Your task to perform on an android device: open app "Google Pay: Save, Pay, Manage" Image 0: 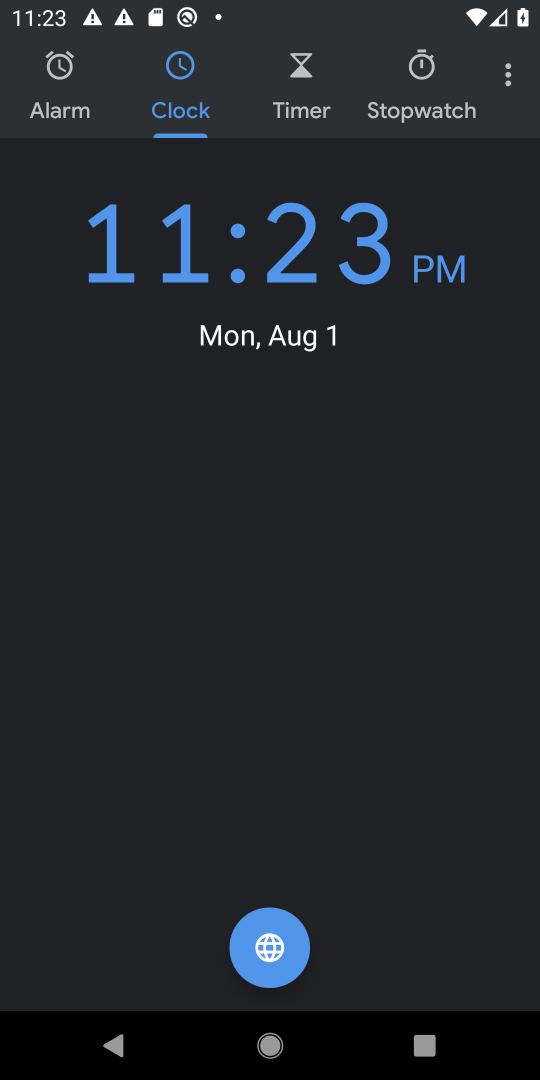
Step 0: press home button
Your task to perform on an android device: open app "Google Pay: Save, Pay, Manage" Image 1: 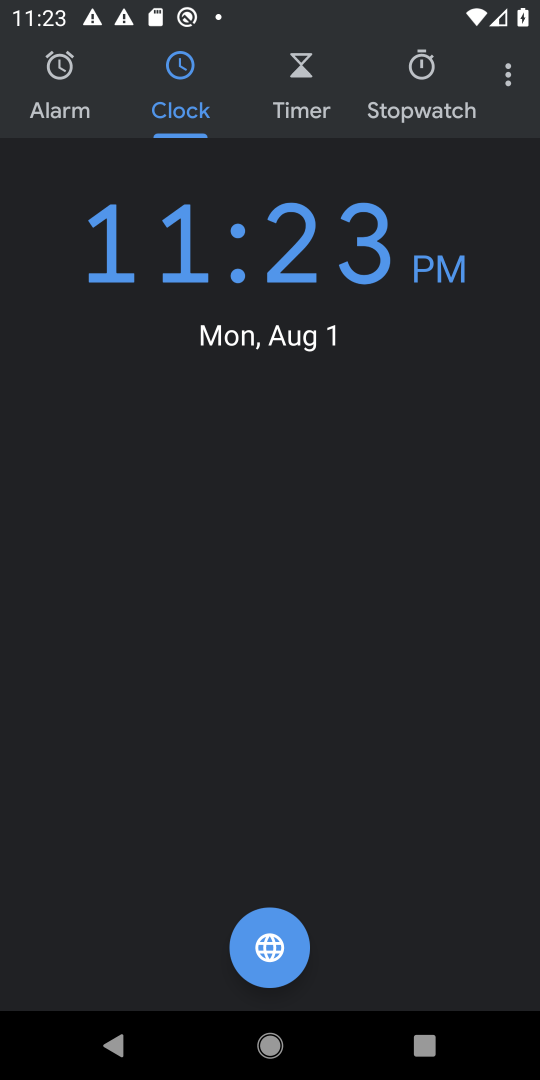
Step 1: click (394, 199)
Your task to perform on an android device: open app "Google Pay: Save, Pay, Manage" Image 2: 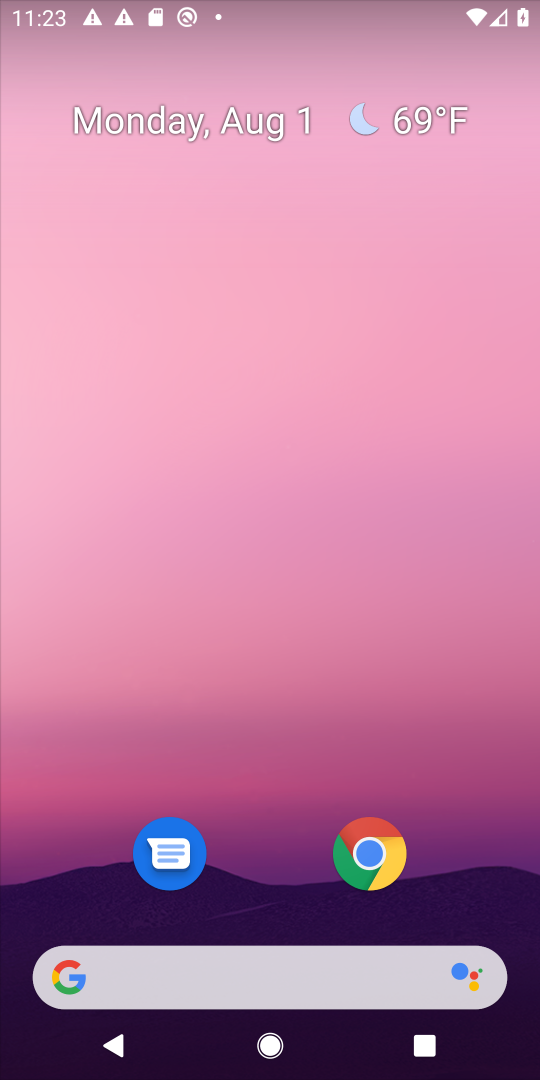
Step 2: drag from (252, 618) to (395, 24)
Your task to perform on an android device: open app "Google Pay: Save, Pay, Manage" Image 3: 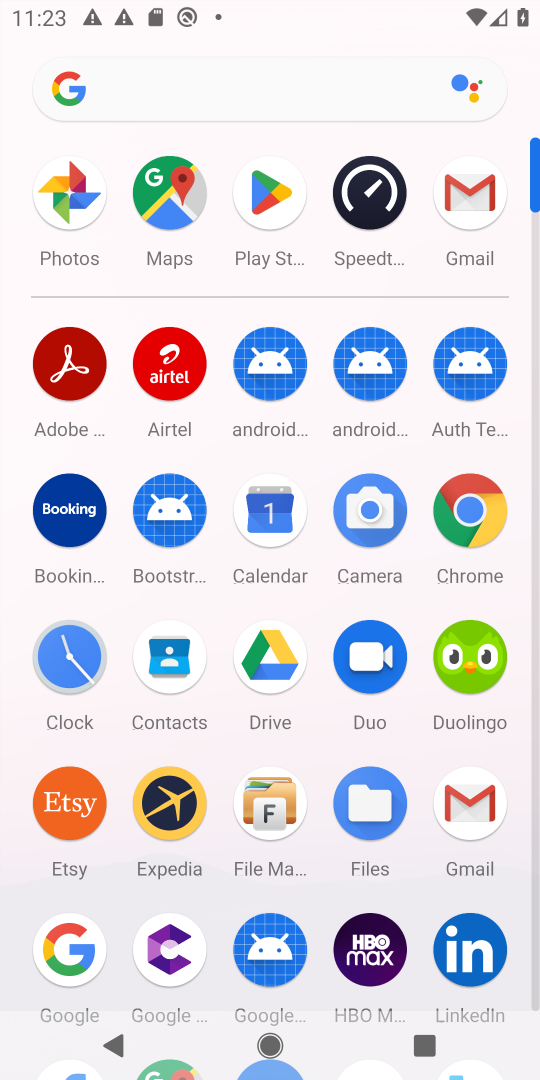
Step 3: click (264, 200)
Your task to perform on an android device: open app "Google Pay: Save, Pay, Manage" Image 4: 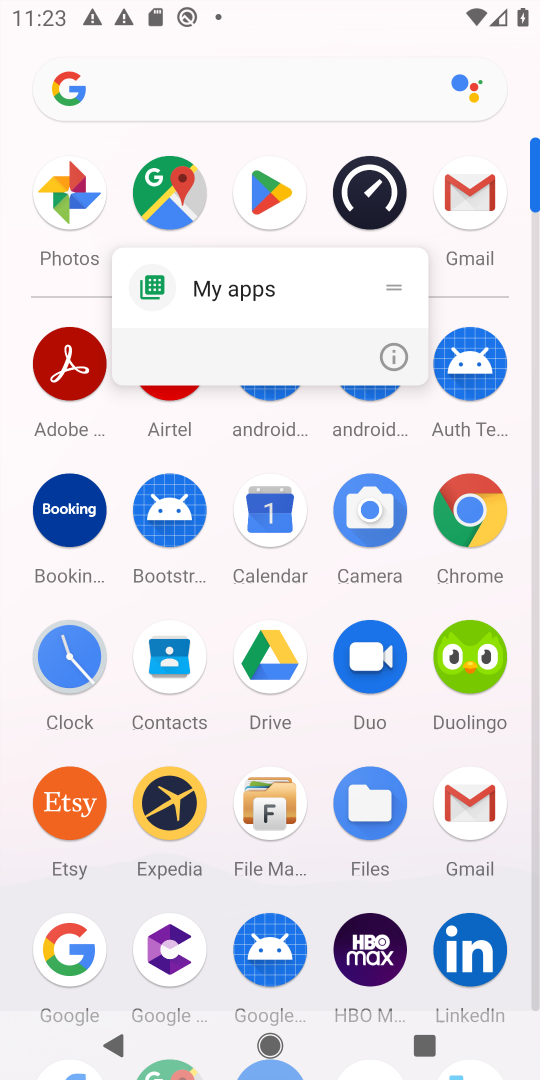
Step 4: click (395, 356)
Your task to perform on an android device: open app "Google Pay: Save, Pay, Manage" Image 5: 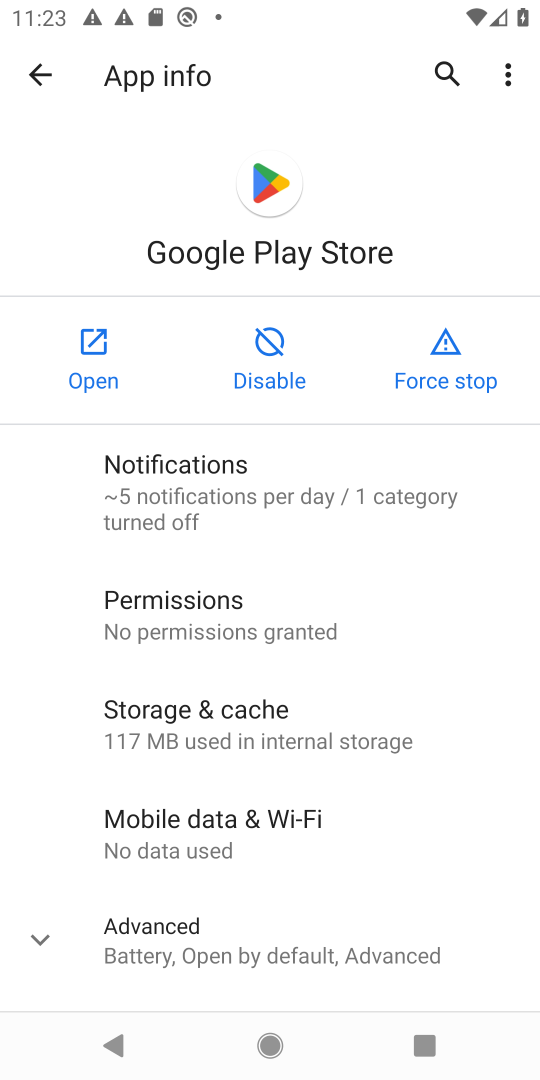
Step 5: click (111, 359)
Your task to perform on an android device: open app "Google Pay: Save, Pay, Manage" Image 6: 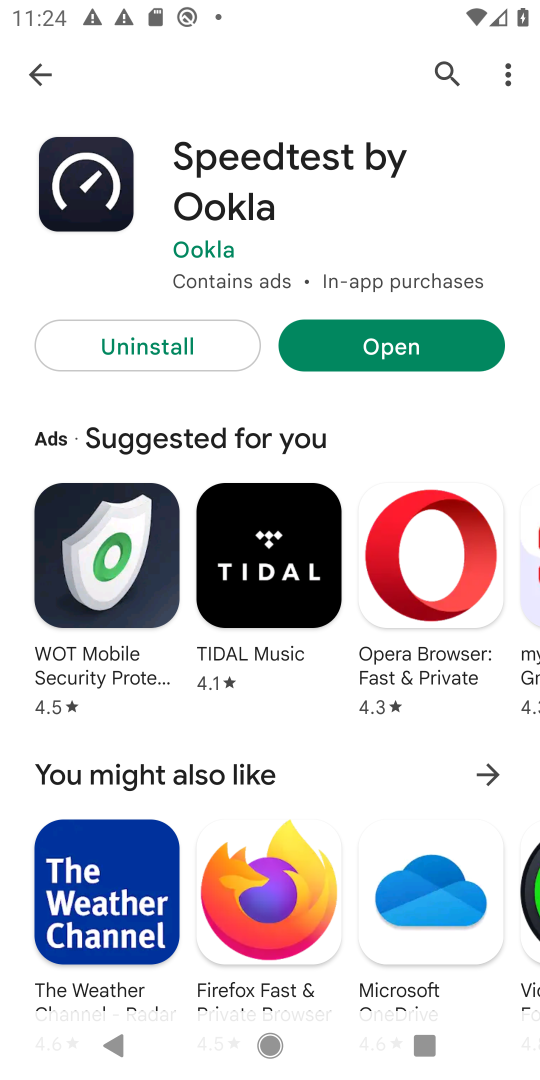
Step 6: click (436, 69)
Your task to perform on an android device: open app "Google Pay: Save, Pay, Manage" Image 7: 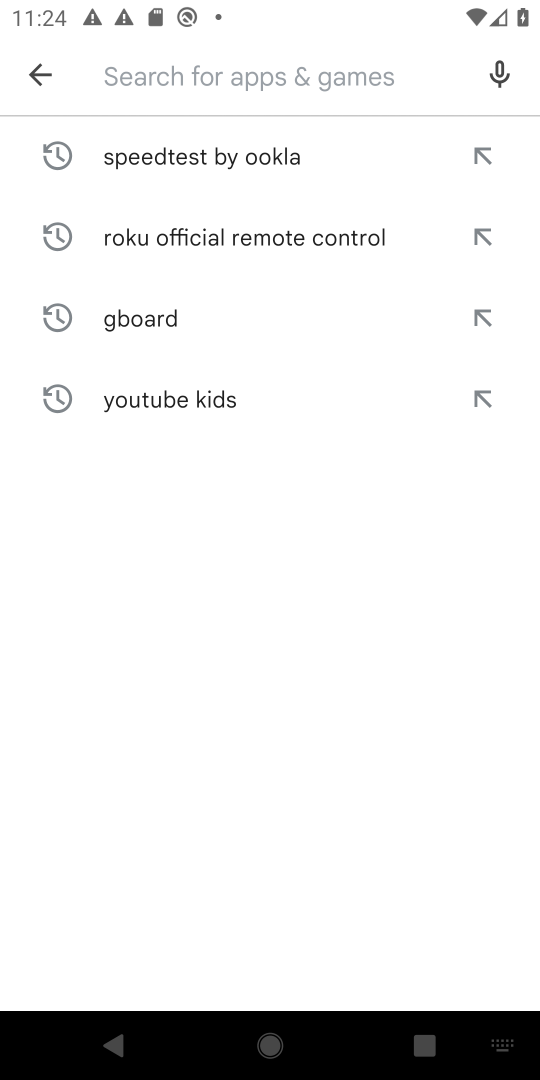
Step 7: type "Google Pay: Save, Pay, Manage"
Your task to perform on an android device: open app "Google Pay: Save, Pay, Manage" Image 8: 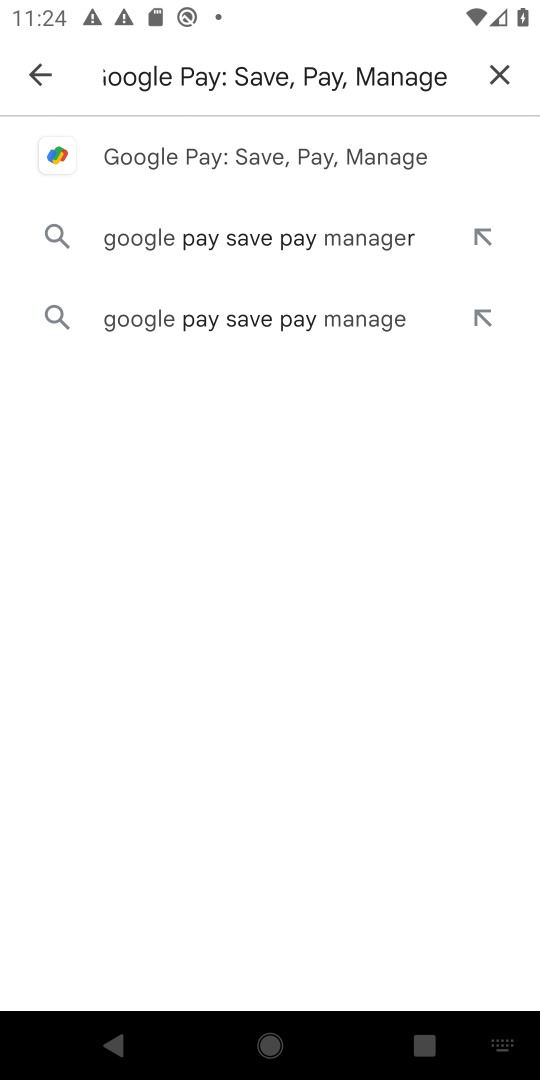
Step 8: click (184, 146)
Your task to perform on an android device: open app "Google Pay: Save, Pay, Manage" Image 9: 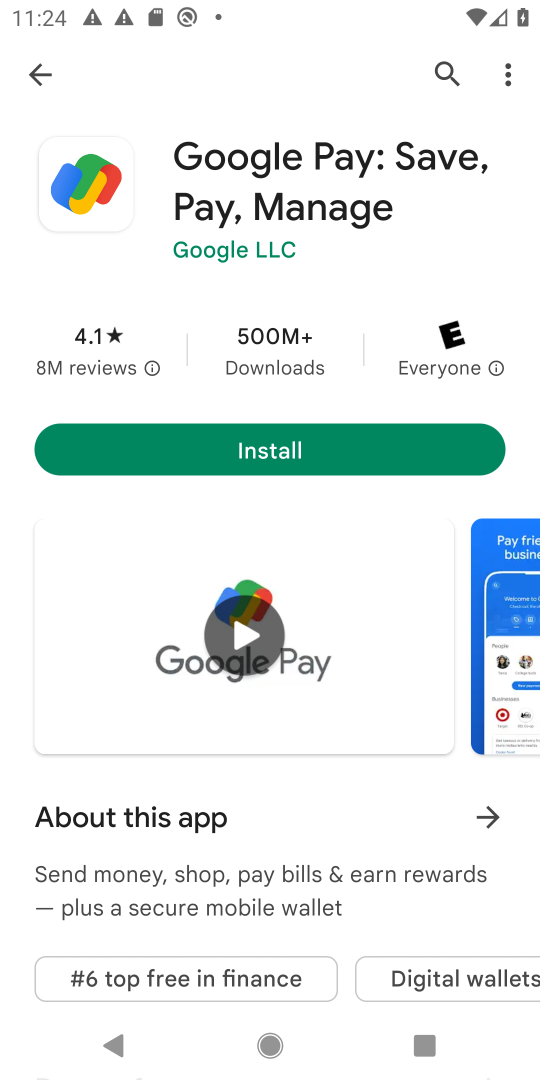
Step 9: task complete